Your task to perform on an android device: change the upload size in google photos Image 0: 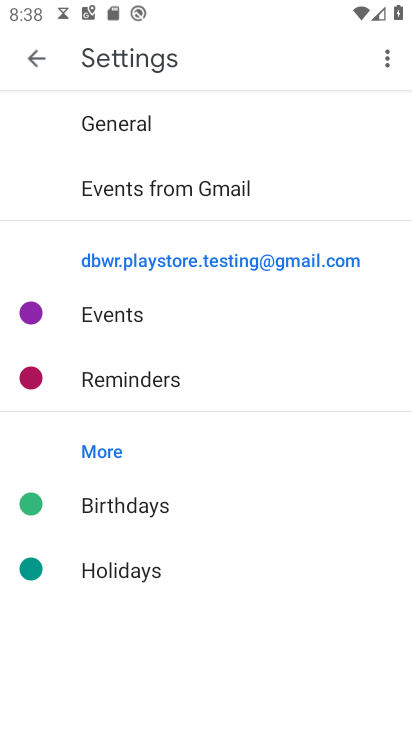
Step 0: press home button
Your task to perform on an android device: change the upload size in google photos Image 1: 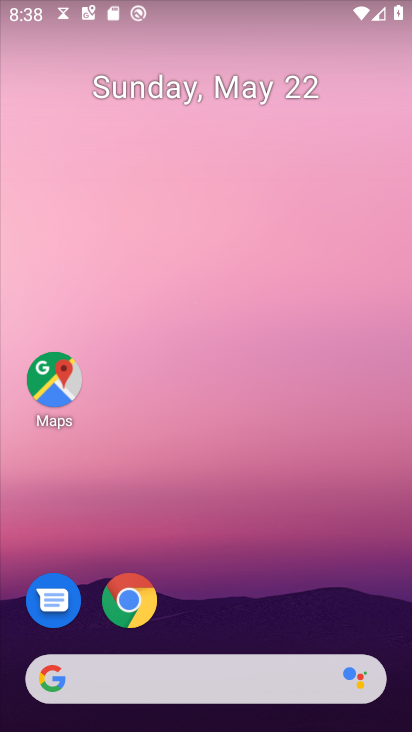
Step 1: drag from (219, 649) to (232, 341)
Your task to perform on an android device: change the upload size in google photos Image 2: 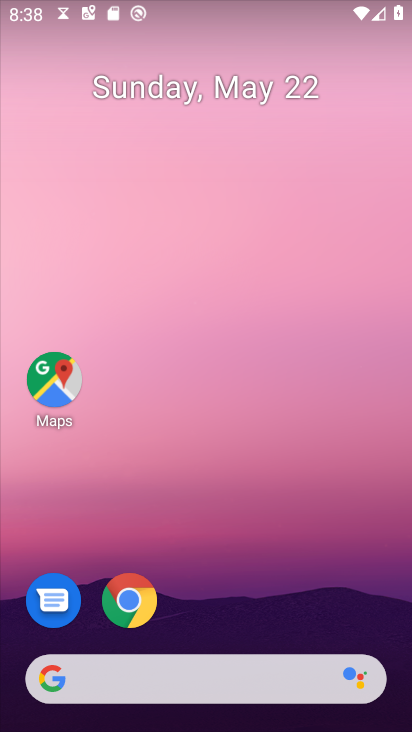
Step 2: drag from (229, 650) to (249, 257)
Your task to perform on an android device: change the upload size in google photos Image 3: 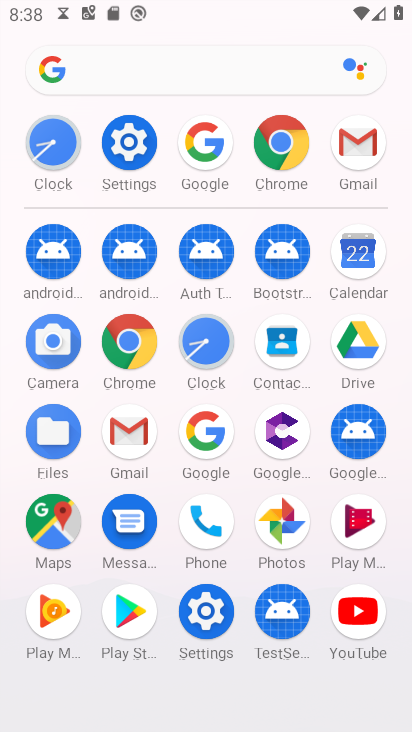
Step 3: click (279, 520)
Your task to perform on an android device: change the upload size in google photos Image 4: 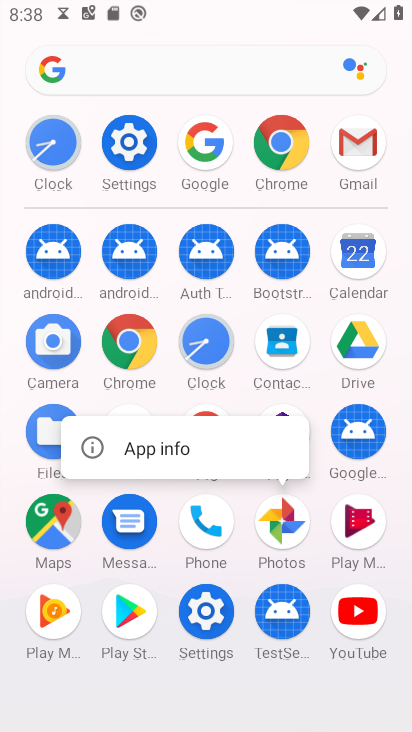
Step 4: click (278, 516)
Your task to perform on an android device: change the upload size in google photos Image 5: 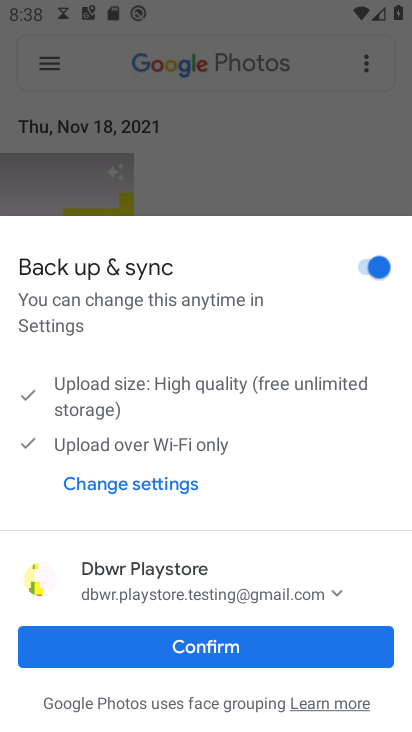
Step 5: click (207, 641)
Your task to perform on an android device: change the upload size in google photos Image 6: 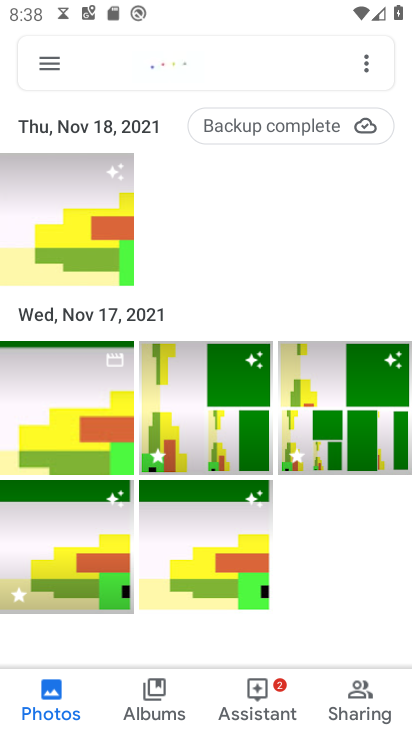
Step 6: click (50, 70)
Your task to perform on an android device: change the upload size in google photos Image 7: 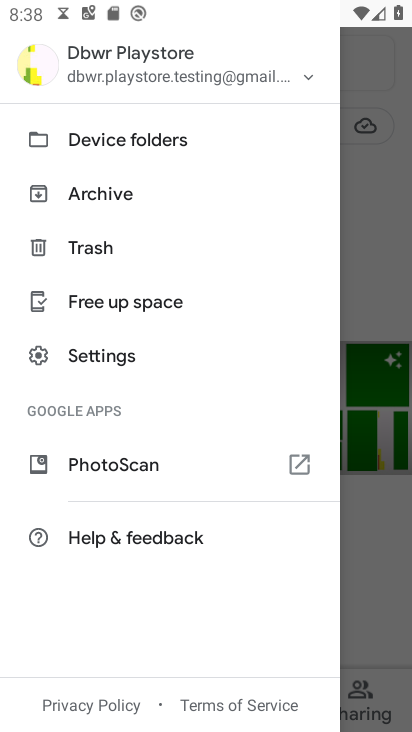
Step 7: click (109, 346)
Your task to perform on an android device: change the upload size in google photos Image 8: 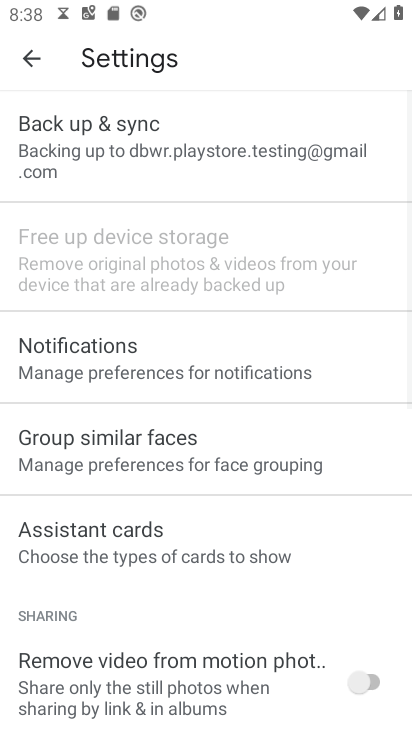
Step 8: click (99, 129)
Your task to perform on an android device: change the upload size in google photos Image 9: 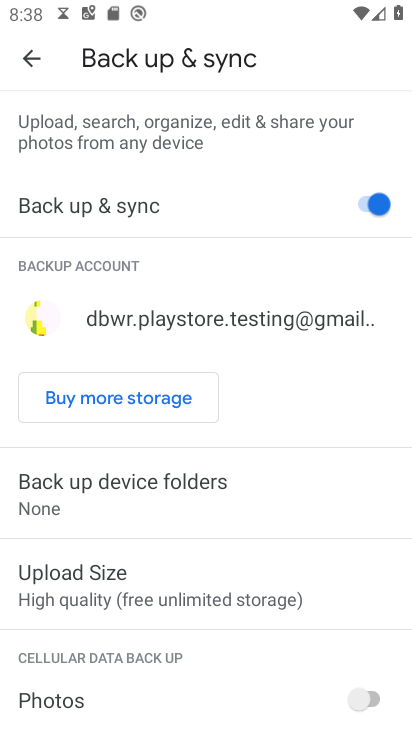
Step 9: click (93, 603)
Your task to perform on an android device: change the upload size in google photos Image 10: 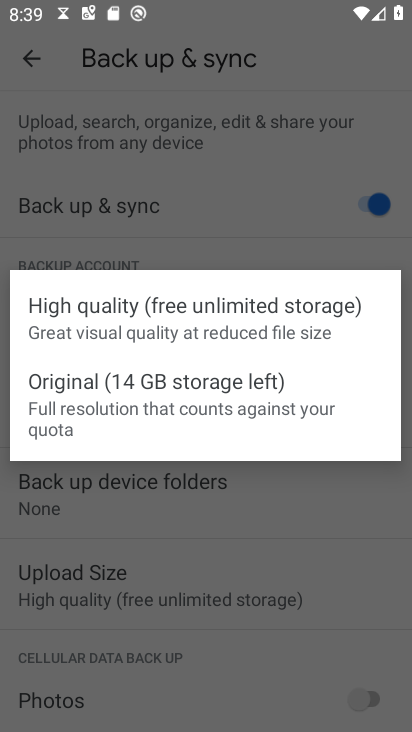
Step 10: click (100, 387)
Your task to perform on an android device: change the upload size in google photos Image 11: 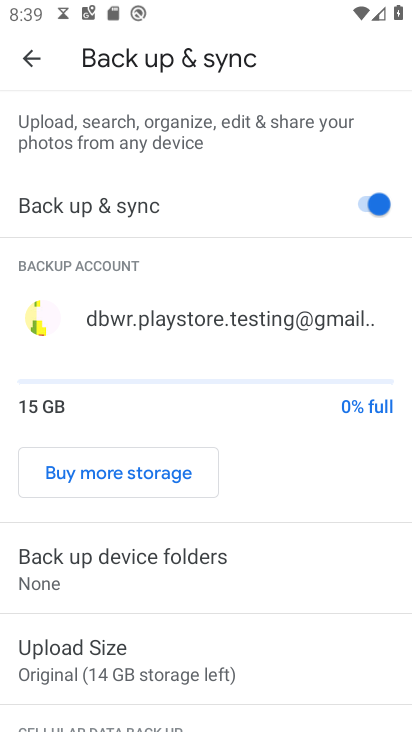
Step 11: task complete